Your task to perform on an android device: delete a single message in the gmail app Image 0: 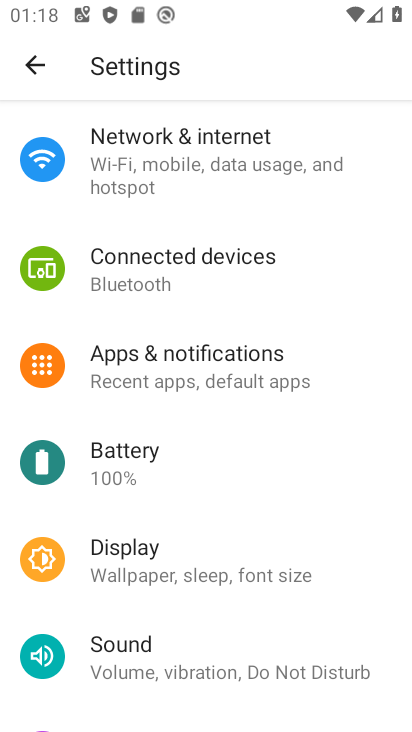
Step 0: press home button
Your task to perform on an android device: delete a single message in the gmail app Image 1: 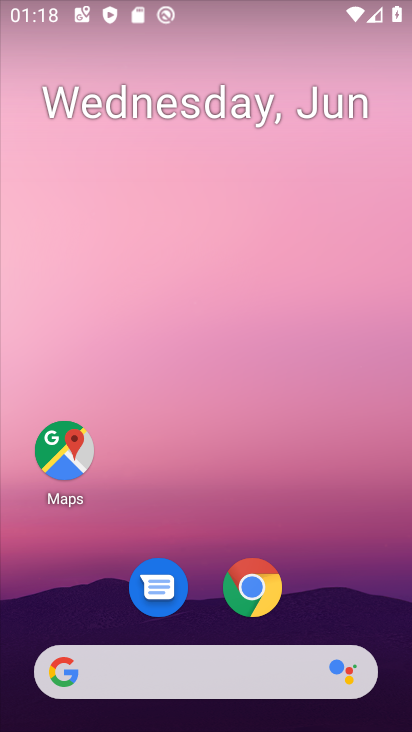
Step 1: drag from (333, 626) to (335, 228)
Your task to perform on an android device: delete a single message in the gmail app Image 2: 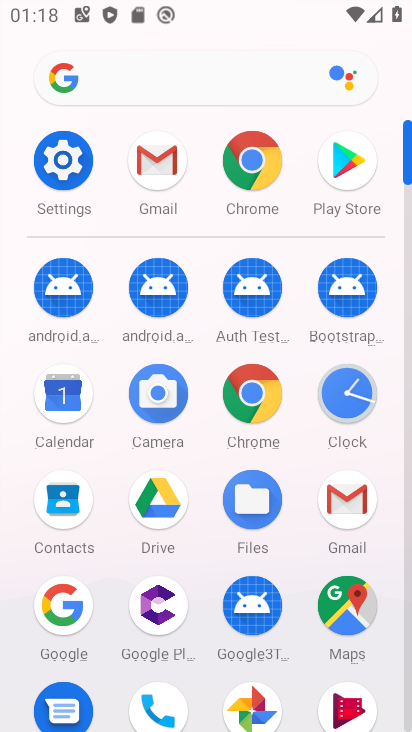
Step 2: click (159, 171)
Your task to perform on an android device: delete a single message in the gmail app Image 3: 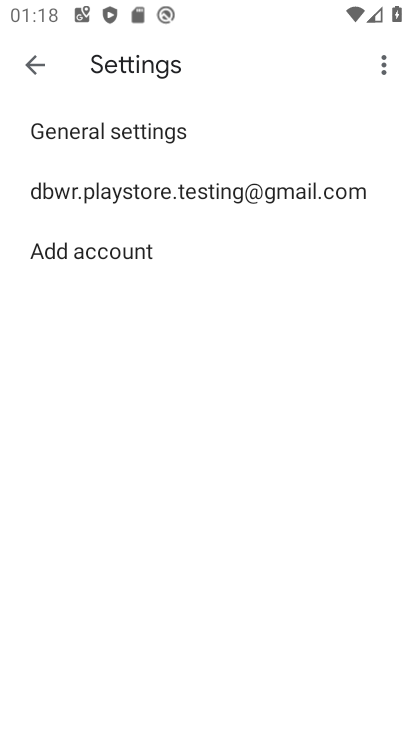
Step 3: click (203, 194)
Your task to perform on an android device: delete a single message in the gmail app Image 4: 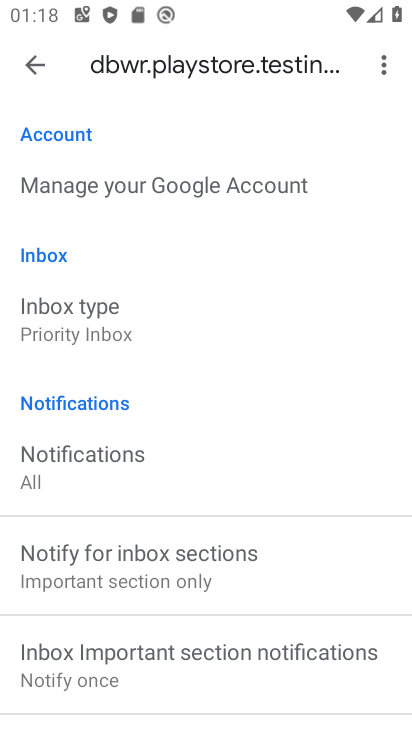
Step 4: click (43, 59)
Your task to perform on an android device: delete a single message in the gmail app Image 5: 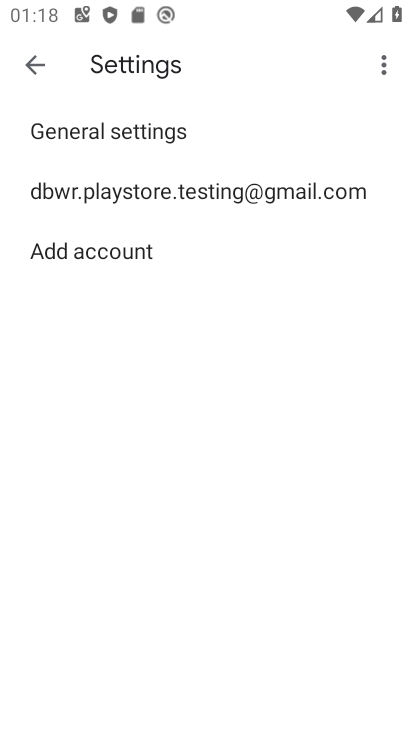
Step 5: click (43, 62)
Your task to perform on an android device: delete a single message in the gmail app Image 6: 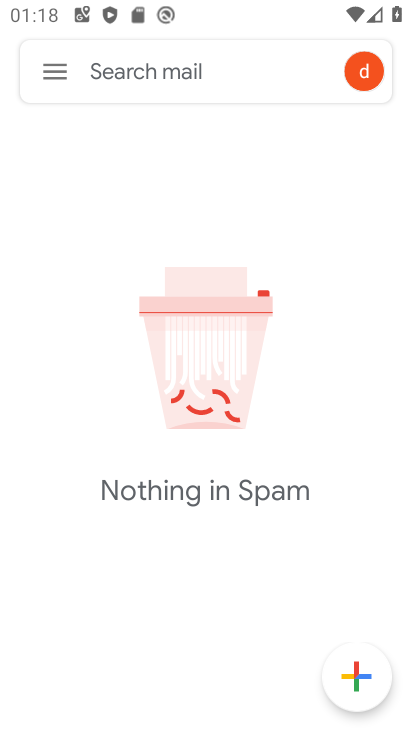
Step 6: click (47, 61)
Your task to perform on an android device: delete a single message in the gmail app Image 7: 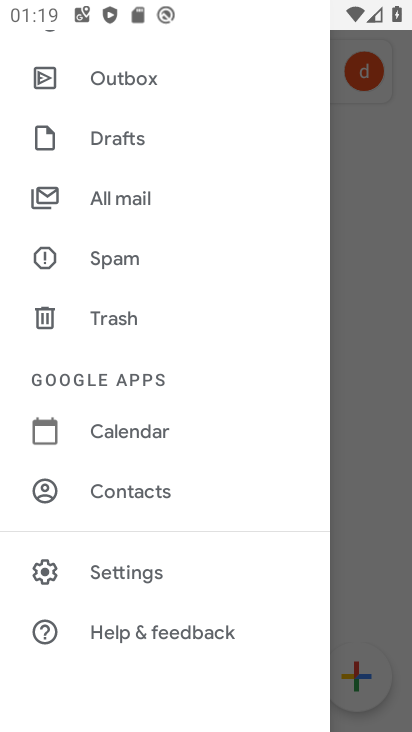
Step 7: click (119, 195)
Your task to perform on an android device: delete a single message in the gmail app Image 8: 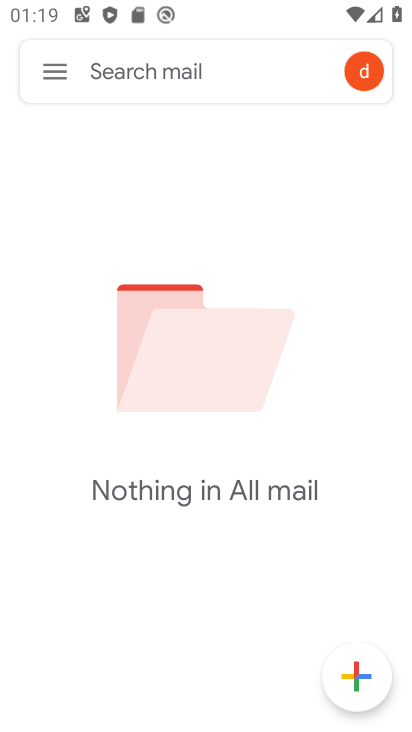
Step 8: task complete